Your task to perform on an android device: toggle wifi Image 0: 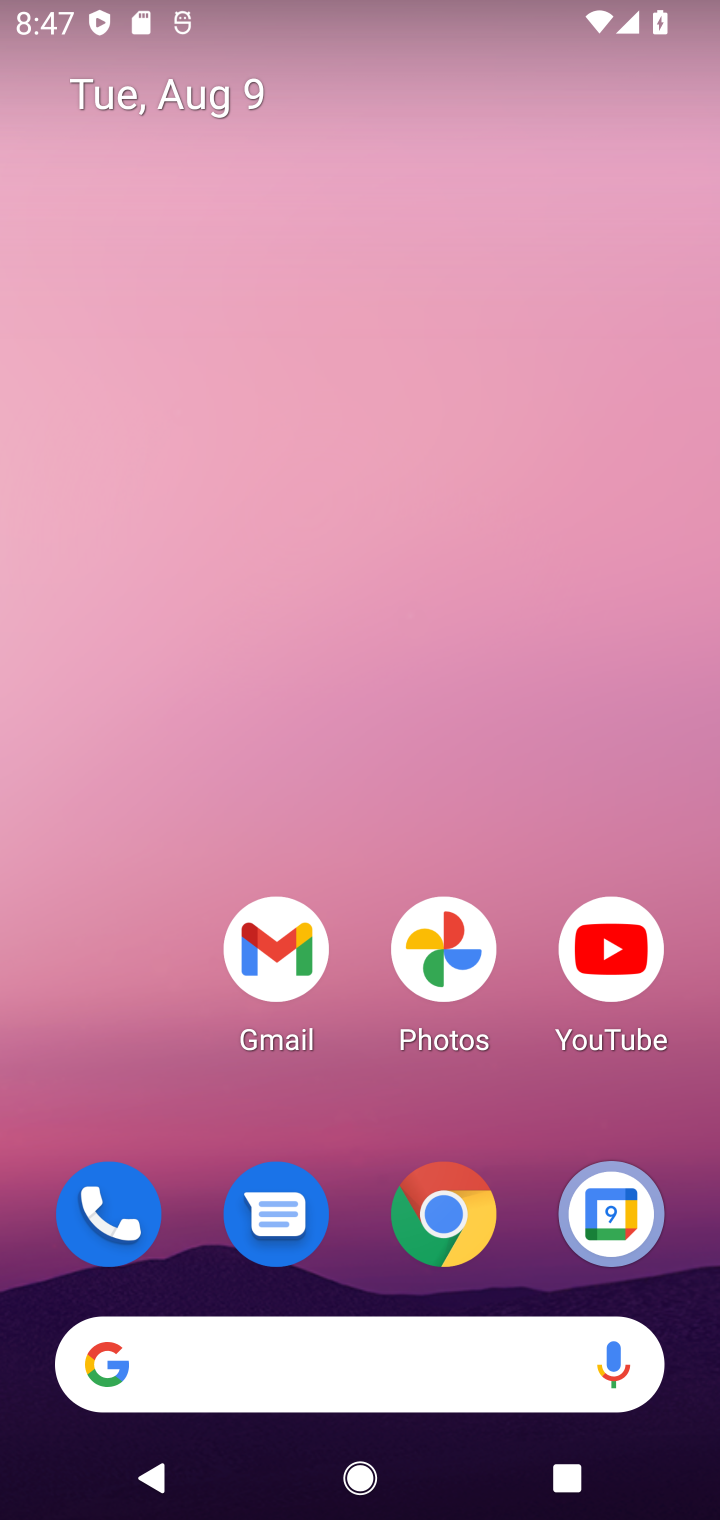
Step 0: drag from (29, 1450) to (292, 503)
Your task to perform on an android device: toggle wifi Image 1: 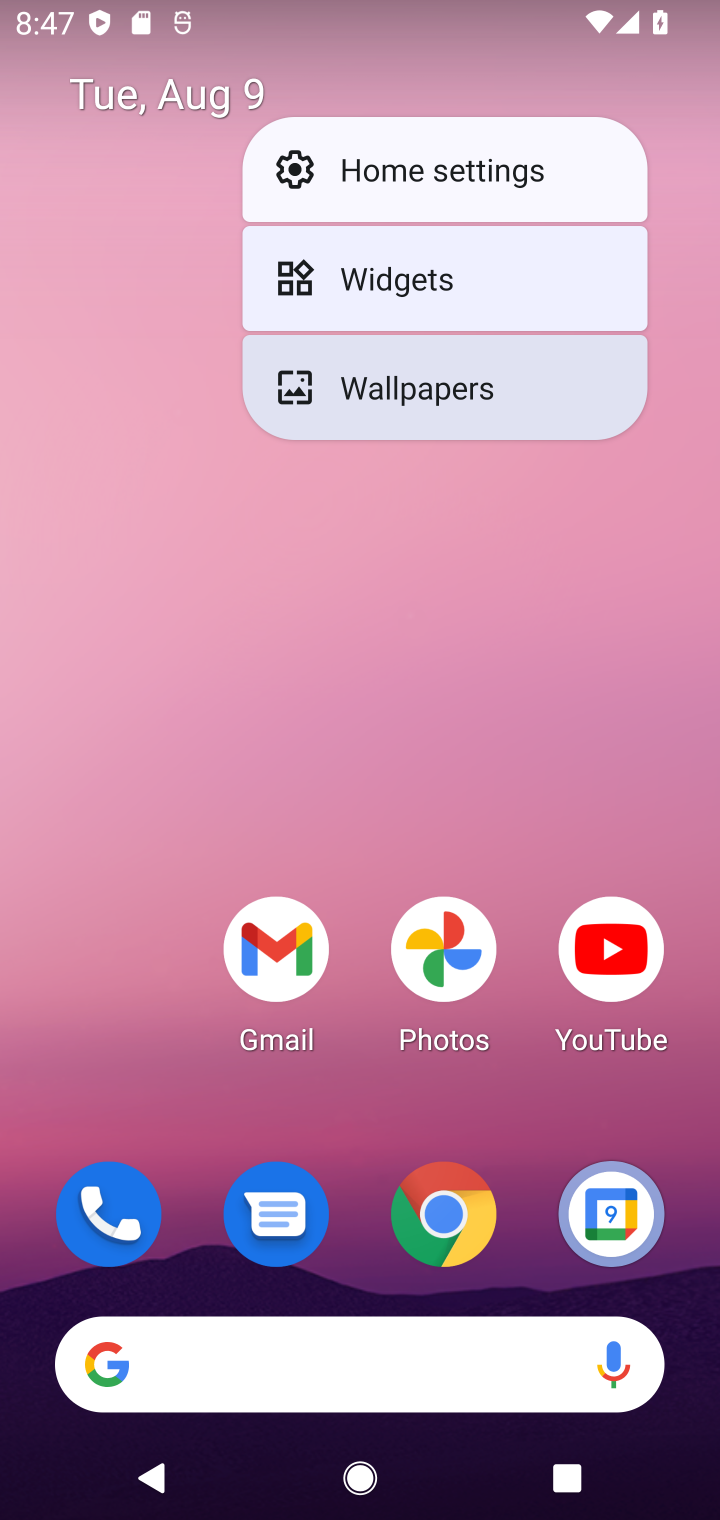
Step 1: task complete